Your task to perform on an android device: Is it going to rain tomorrow? Image 0: 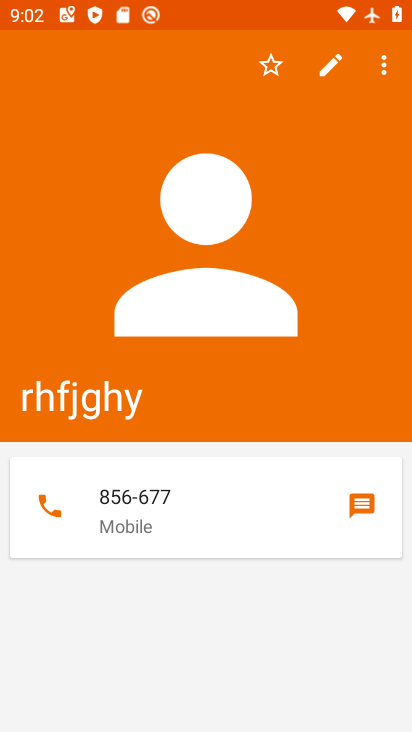
Step 0: press home button
Your task to perform on an android device: Is it going to rain tomorrow? Image 1: 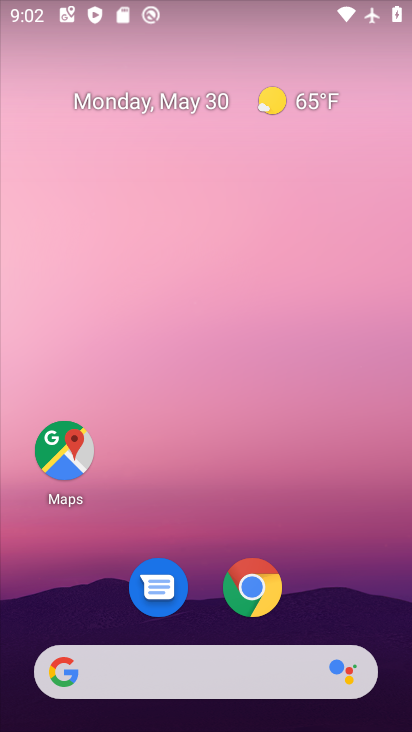
Step 1: click (304, 99)
Your task to perform on an android device: Is it going to rain tomorrow? Image 2: 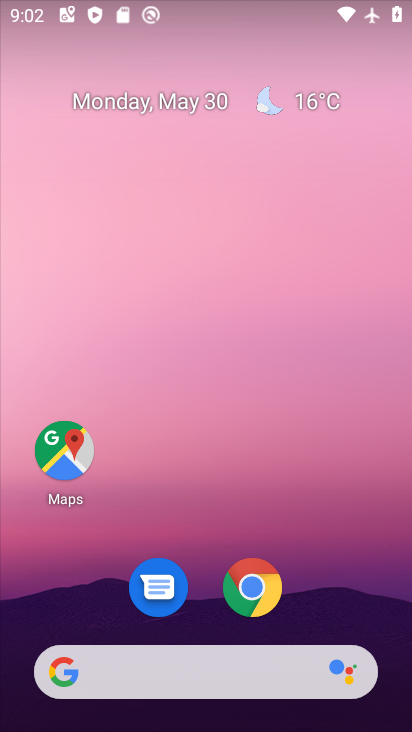
Step 2: click (276, 100)
Your task to perform on an android device: Is it going to rain tomorrow? Image 3: 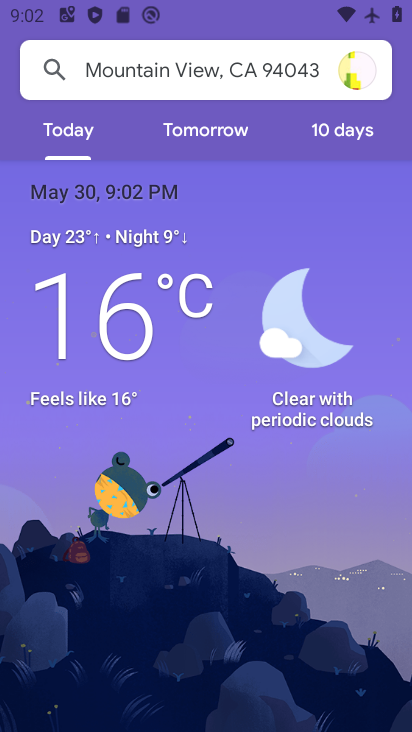
Step 3: click (205, 133)
Your task to perform on an android device: Is it going to rain tomorrow? Image 4: 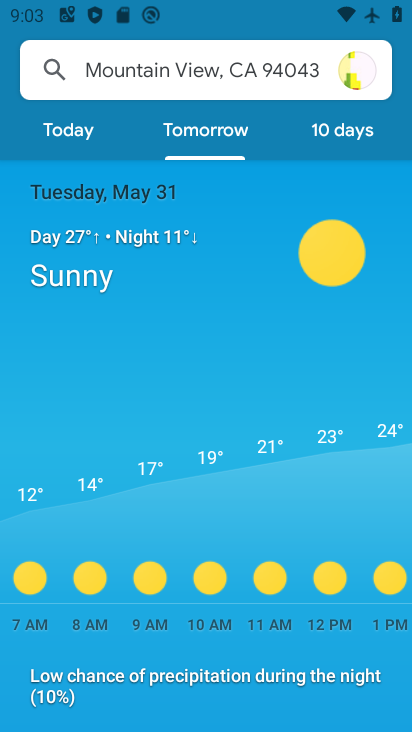
Step 4: task complete